Your task to perform on an android device: star an email in the gmail app Image 0: 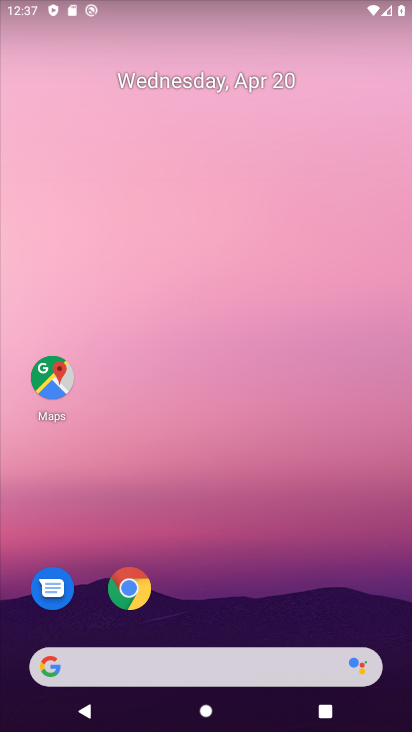
Step 0: drag from (156, 610) to (204, 163)
Your task to perform on an android device: star an email in the gmail app Image 1: 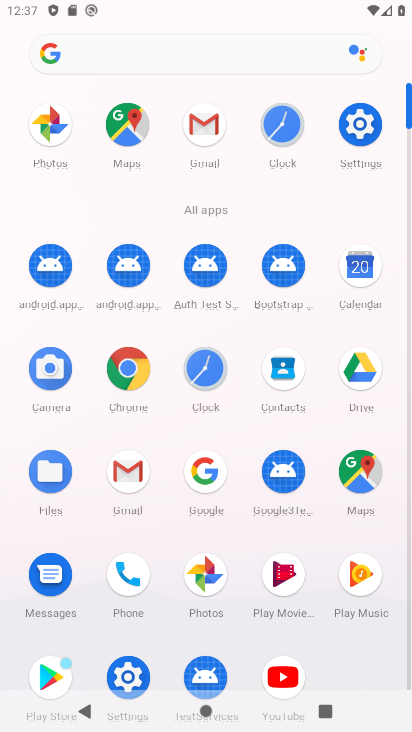
Step 1: click (202, 135)
Your task to perform on an android device: star an email in the gmail app Image 2: 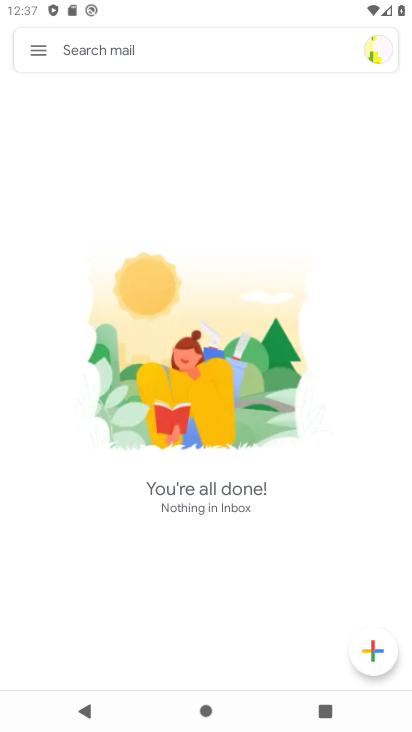
Step 2: click (38, 54)
Your task to perform on an android device: star an email in the gmail app Image 3: 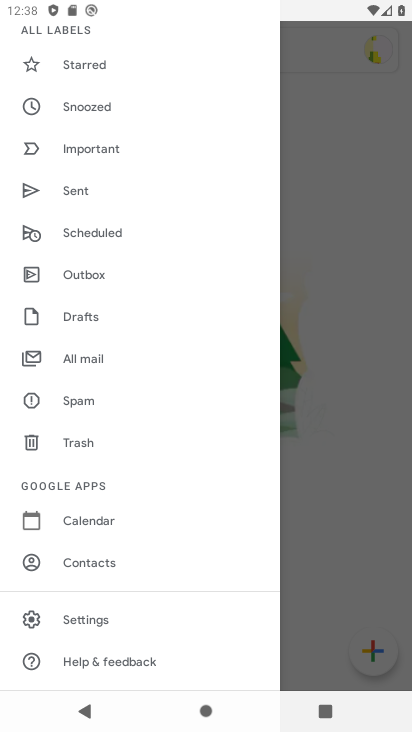
Step 3: click (68, 350)
Your task to perform on an android device: star an email in the gmail app Image 4: 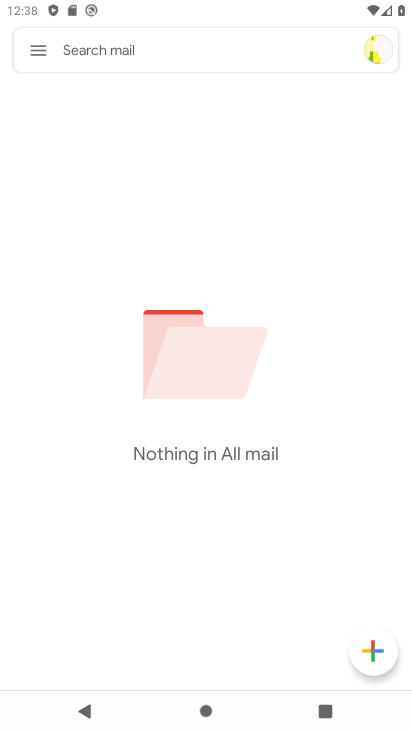
Step 4: task complete